Your task to perform on an android device: empty trash in the gmail app Image 0: 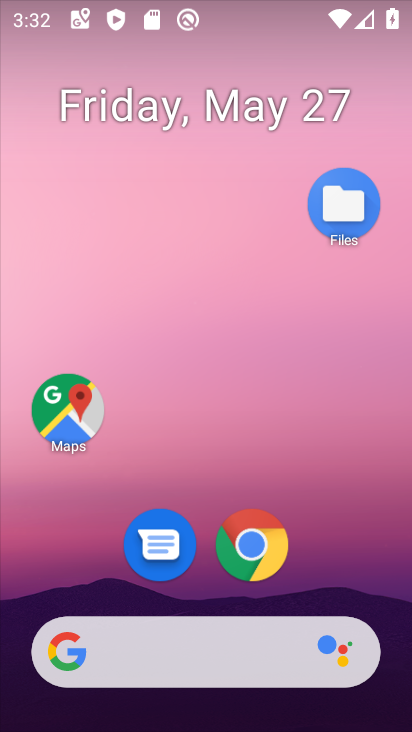
Step 0: press home button
Your task to perform on an android device: empty trash in the gmail app Image 1: 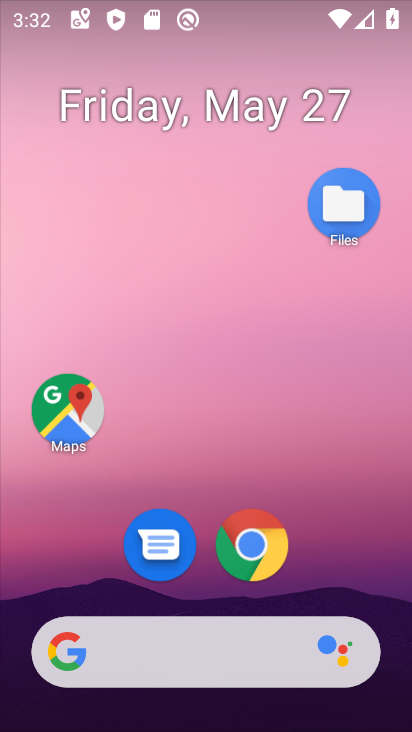
Step 1: drag from (184, 659) to (306, 136)
Your task to perform on an android device: empty trash in the gmail app Image 2: 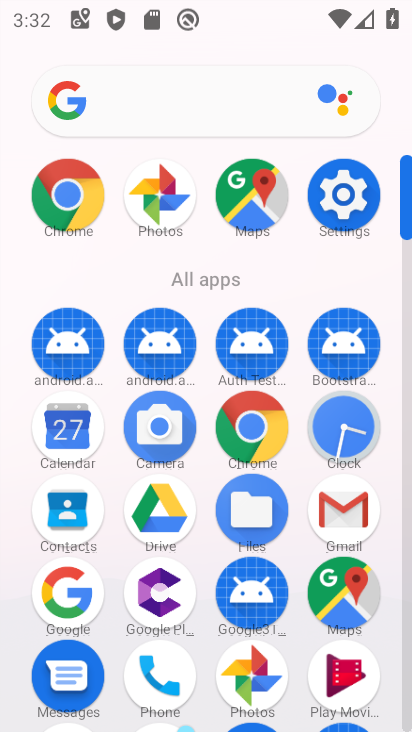
Step 2: click (337, 509)
Your task to perform on an android device: empty trash in the gmail app Image 3: 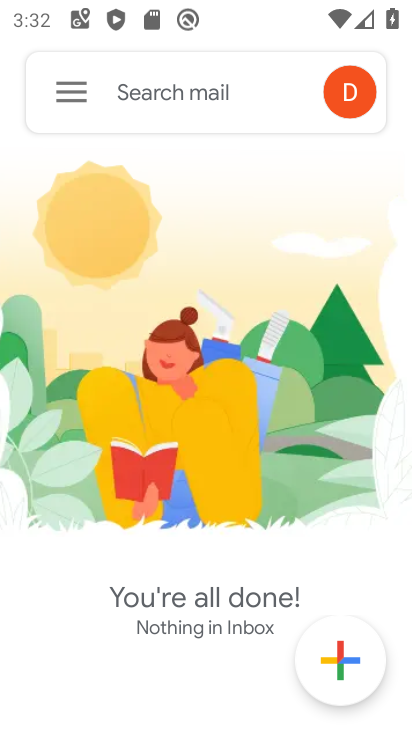
Step 3: click (67, 91)
Your task to perform on an android device: empty trash in the gmail app Image 4: 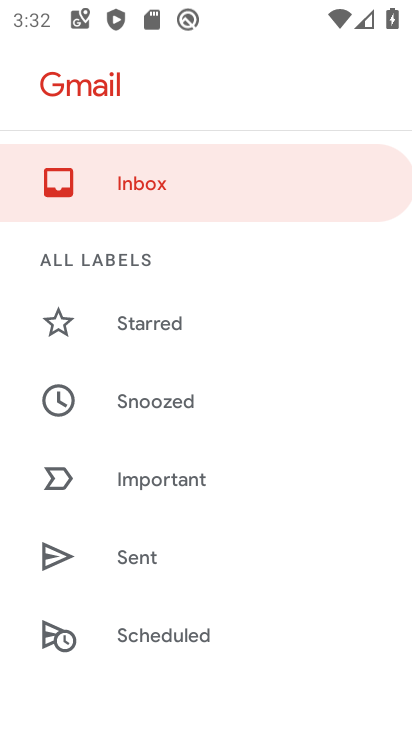
Step 4: drag from (209, 566) to (298, 149)
Your task to perform on an android device: empty trash in the gmail app Image 5: 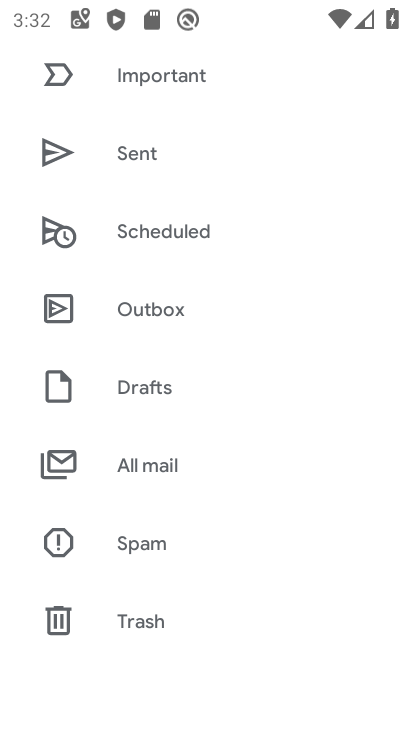
Step 5: click (146, 624)
Your task to perform on an android device: empty trash in the gmail app Image 6: 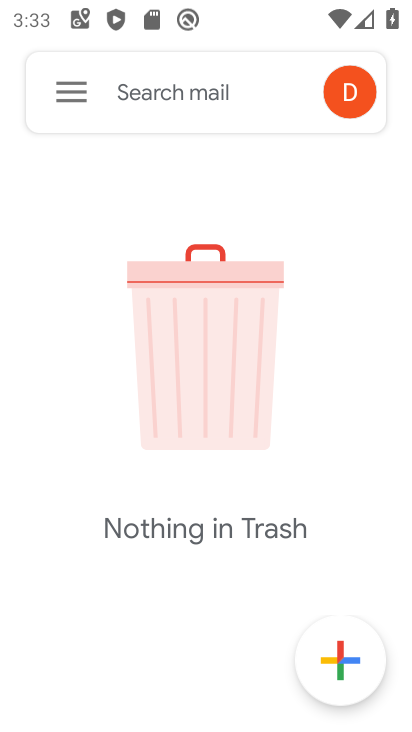
Step 6: task complete